Your task to perform on an android device: Go to battery settings Image 0: 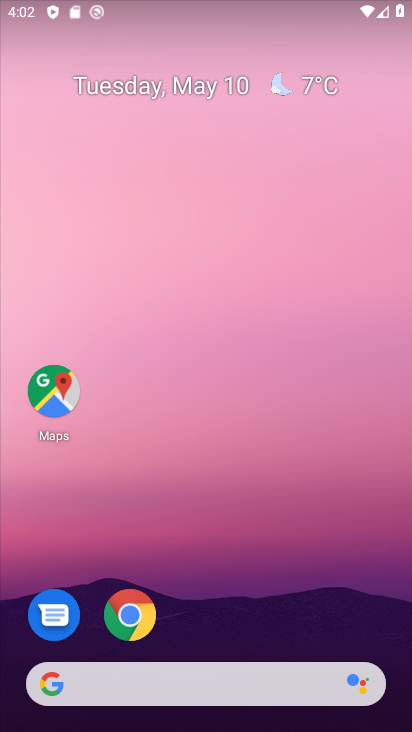
Step 0: drag from (239, 592) to (140, 0)
Your task to perform on an android device: Go to battery settings Image 1: 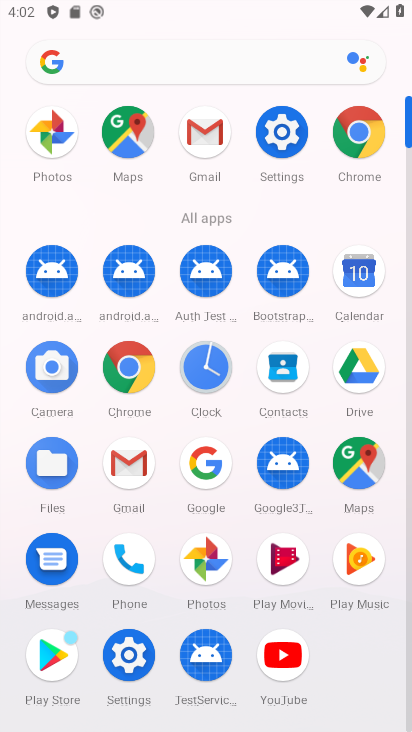
Step 1: drag from (22, 549) to (21, 210)
Your task to perform on an android device: Go to battery settings Image 2: 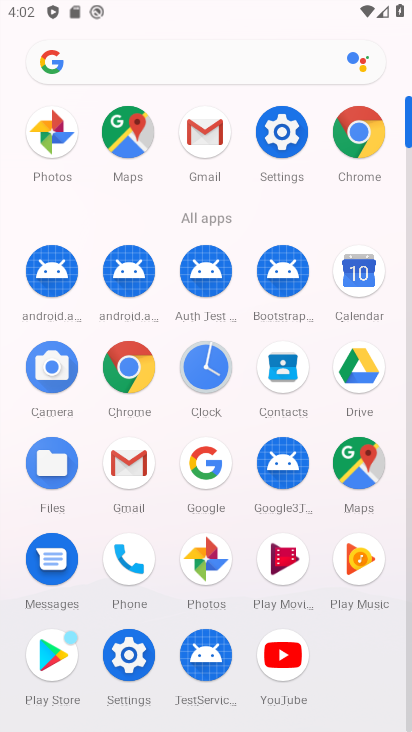
Step 2: click (123, 657)
Your task to perform on an android device: Go to battery settings Image 3: 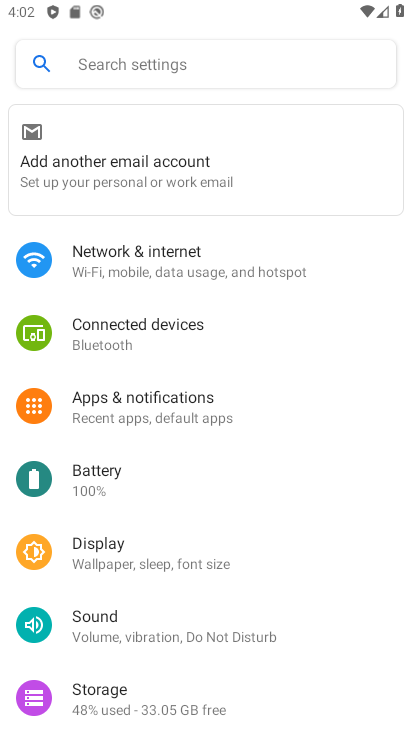
Step 3: drag from (231, 478) to (271, 80)
Your task to perform on an android device: Go to battery settings Image 4: 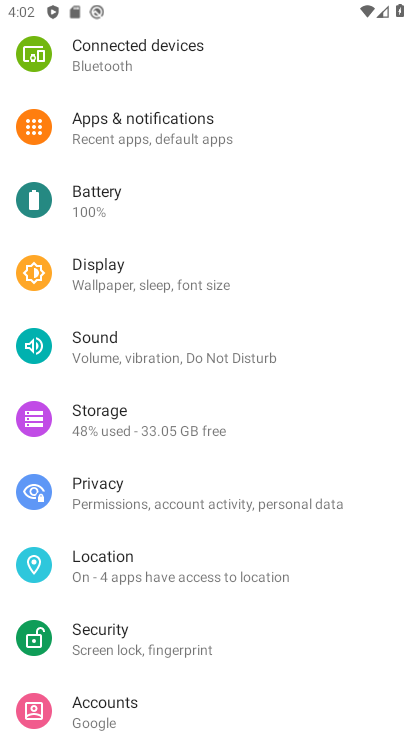
Step 4: drag from (223, 510) to (230, 211)
Your task to perform on an android device: Go to battery settings Image 5: 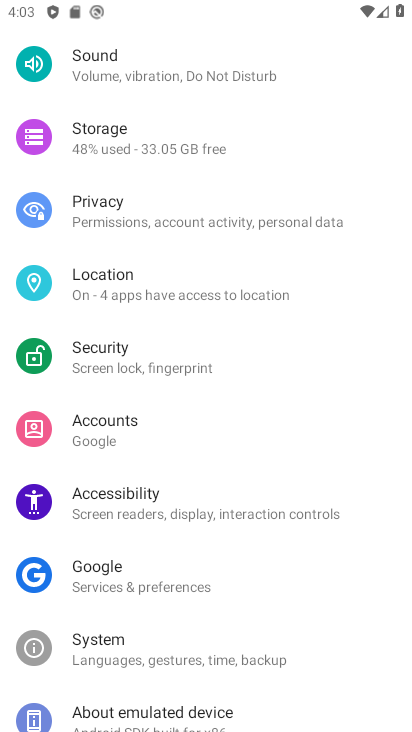
Step 5: drag from (178, 534) to (211, 38)
Your task to perform on an android device: Go to battery settings Image 6: 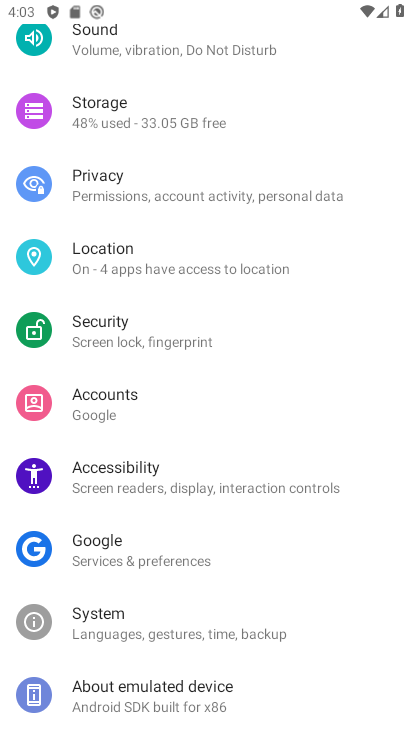
Step 6: drag from (214, 106) to (196, 530)
Your task to perform on an android device: Go to battery settings Image 7: 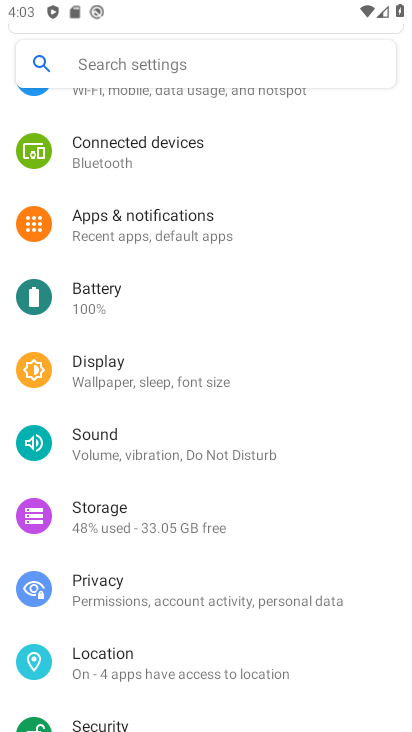
Step 7: click (145, 294)
Your task to perform on an android device: Go to battery settings Image 8: 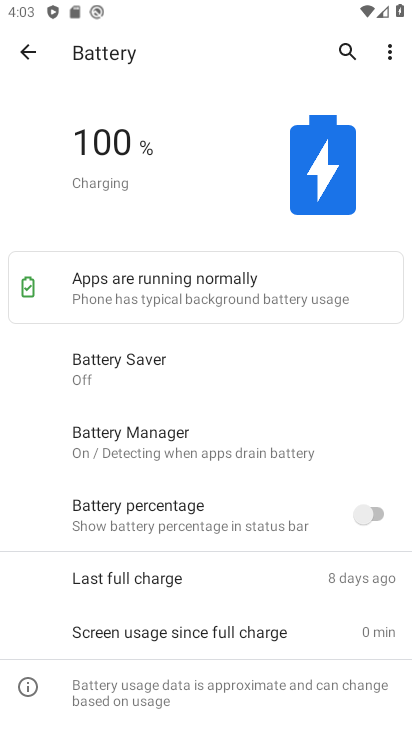
Step 8: task complete